Your task to perform on an android device: change the clock display to analog Image 0: 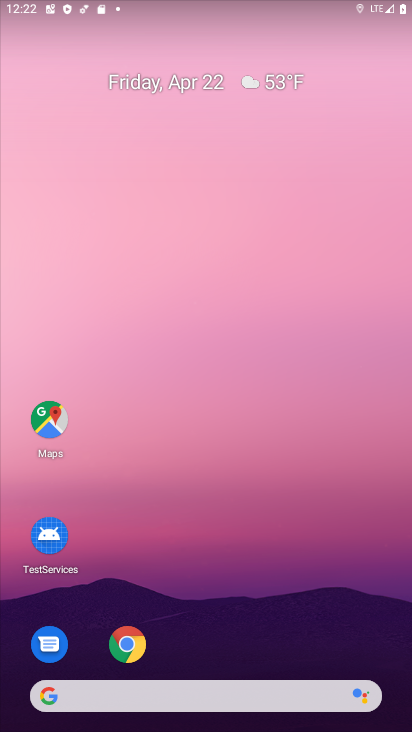
Step 0: drag from (277, 633) to (284, 117)
Your task to perform on an android device: change the clock display to analog Image 1: 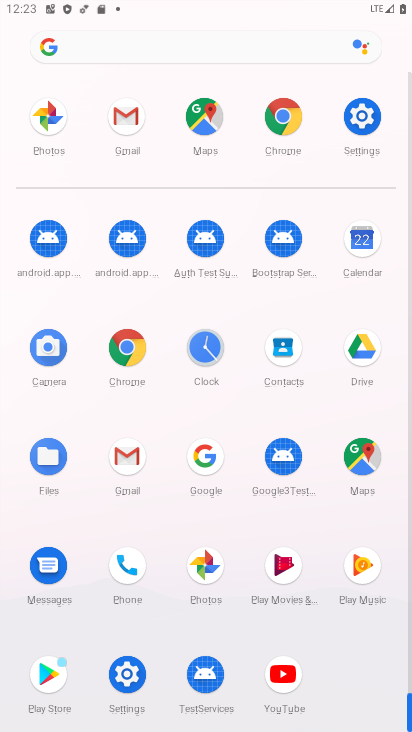
Step 1: click (210, 342)
Your task to perform on an android device: change the clock display to analog Image 2: 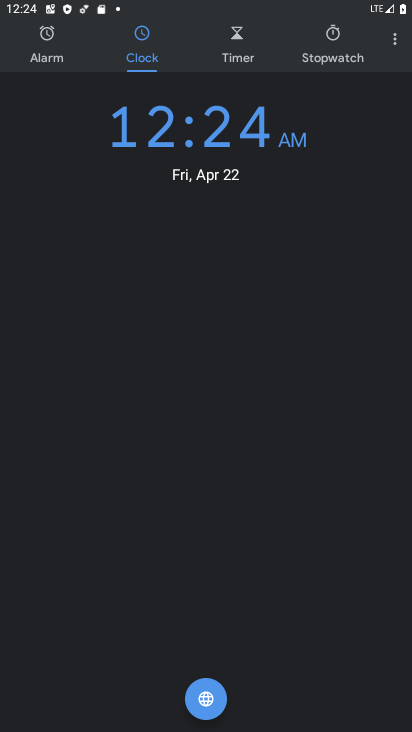
Step 2: click (396, 41)
Your task to perform on an android device: change the clock display to analog Image 3: 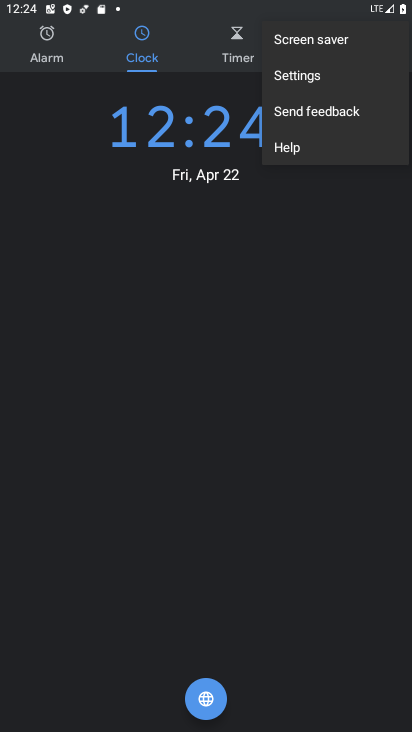
Step 3: click (333, 71)
Your task to perform on an android device: change the clock display to analog Image 4: 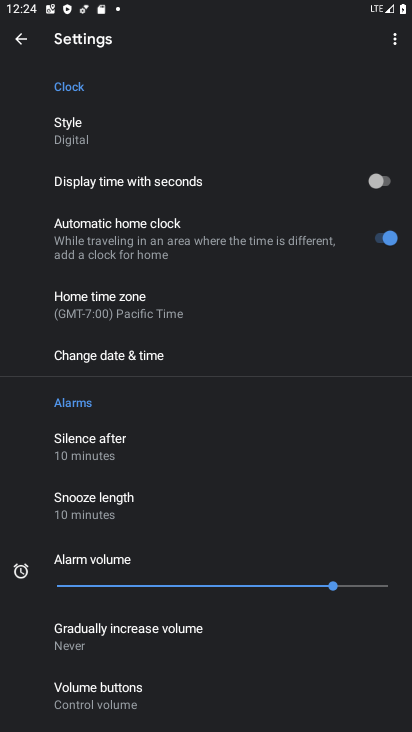
Step 4: click (85, 127)
Your task to perform on an android device: change the clock display to analog Image 5: 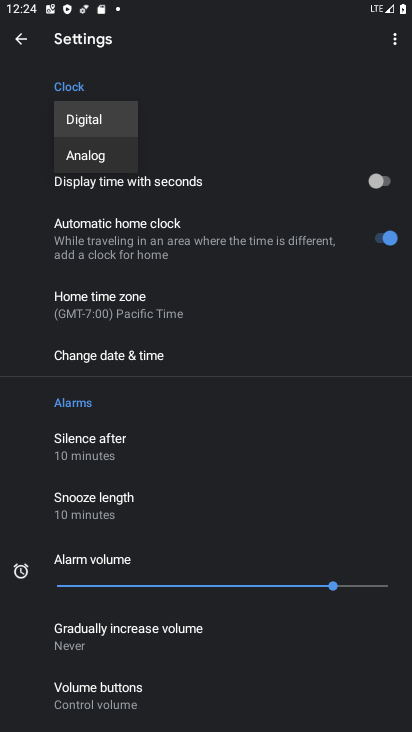
Step 5: click (104, 153)
Your task to perform on an android device: change the clock display to analog Image 6: 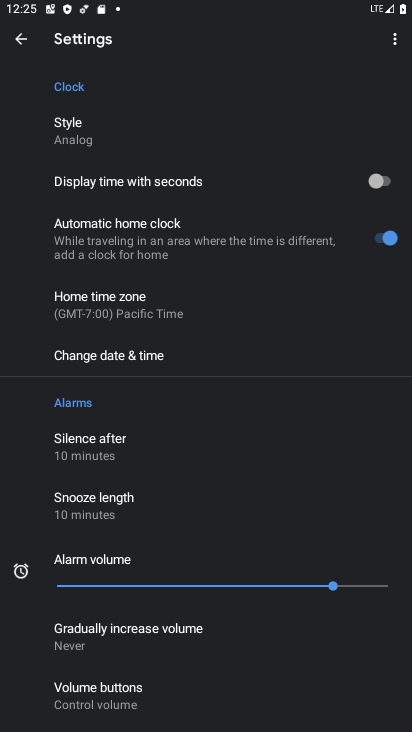
Step 6: task complete